Your task to perform on an android device: Go to wifi settings Image 0: 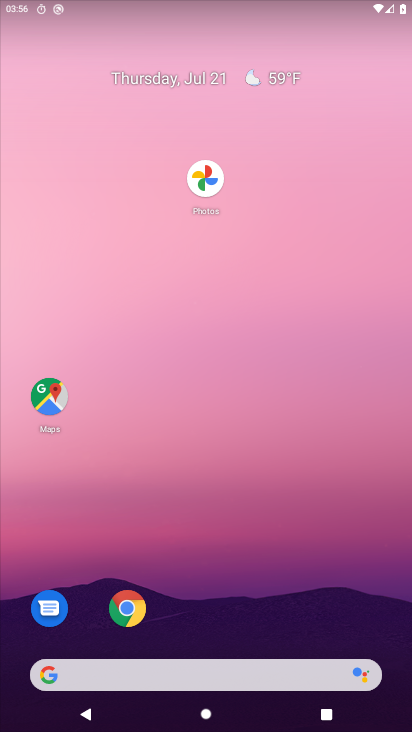
Step 0: press home button
Your task to perform on an android device: Go to wifi settings Image 1: 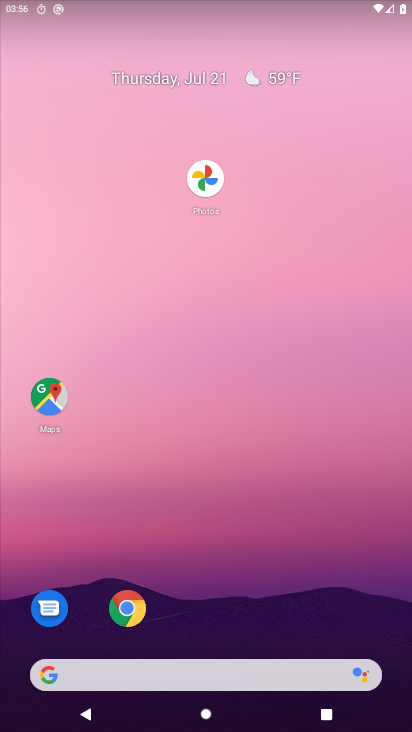
Step 1: drag from (207, 640) to (152, 173)
Your task to perform on an android device: Go to wifi settings Image 2: 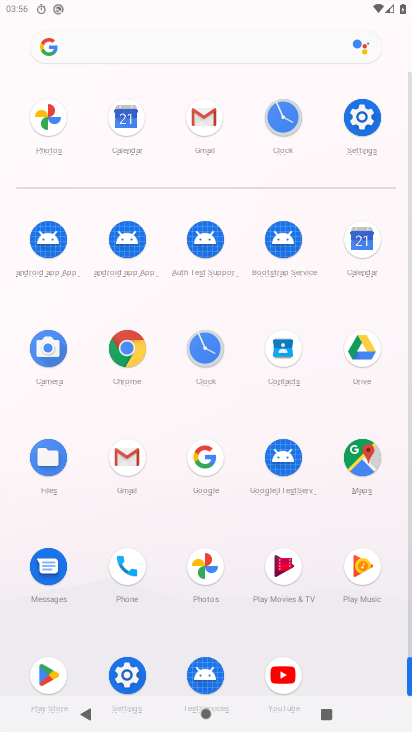
Step 2: click (362, 109)
Your task to perform on an android device: Go to wifi settings Image 3: 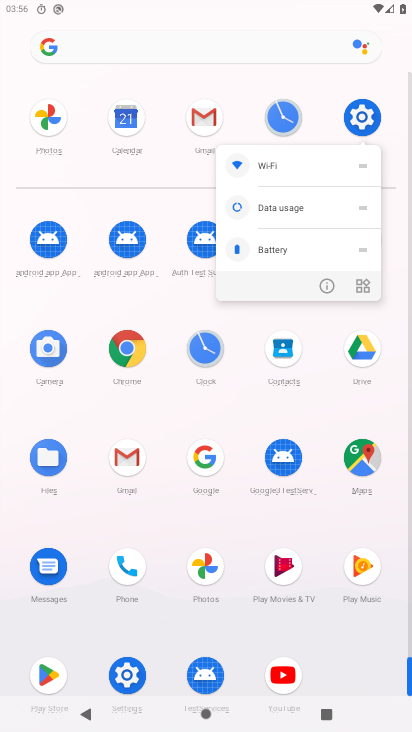
Step 3: click (367, 112)
Your task to perform on an android device: Go to wifi settings Image 4: 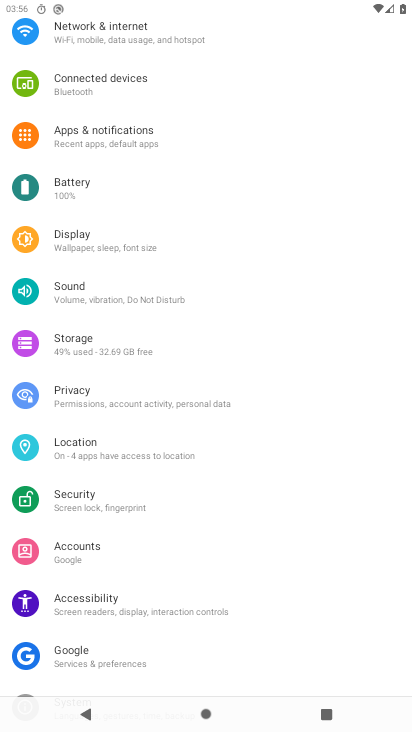
Step 4: drag from (106, 68) to (136, 442)
Your task to perform on an android device: Go to wifi settings Image 5: 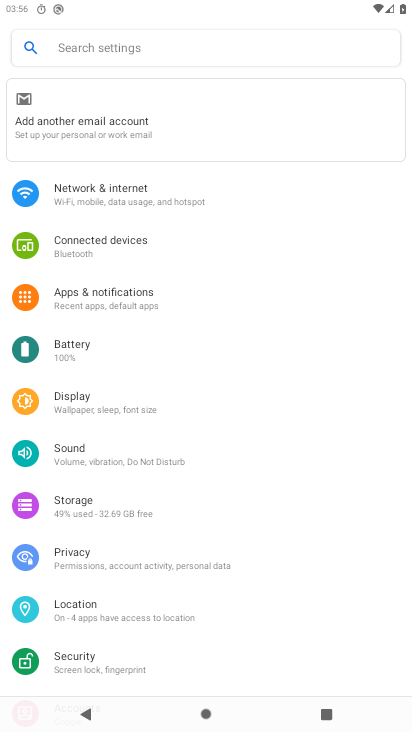
Step 5: click (127, 190)
Your task to perform on an android device: Go to wifi settings Image 6: 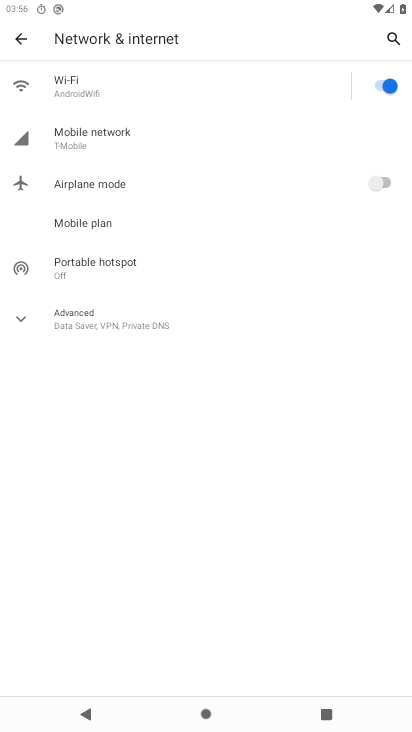
Step 6: click (97, 88)
Your task to perform on an android device: Go to wifi settings Image 7: 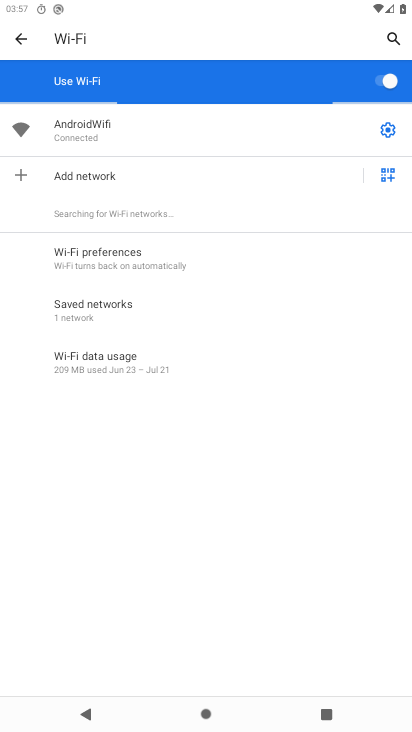
Step 7: task complete